Your task to perform on an android device: toggle airplane mode Image 0: 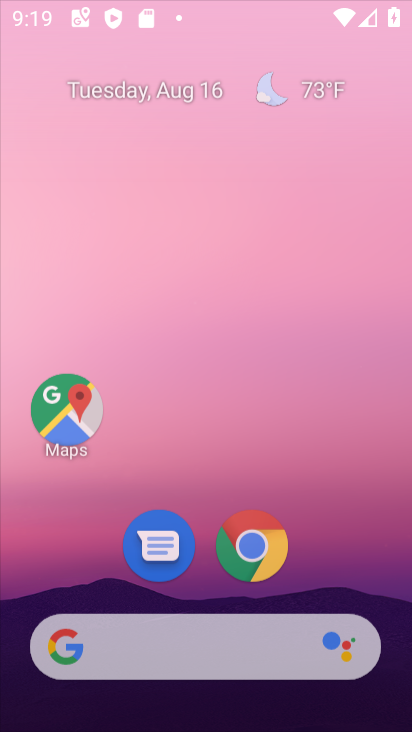
Step 0: drag from (308, 581) to (319, 87)
Your task to perform on an android device: toggle airplane mode Image 1: 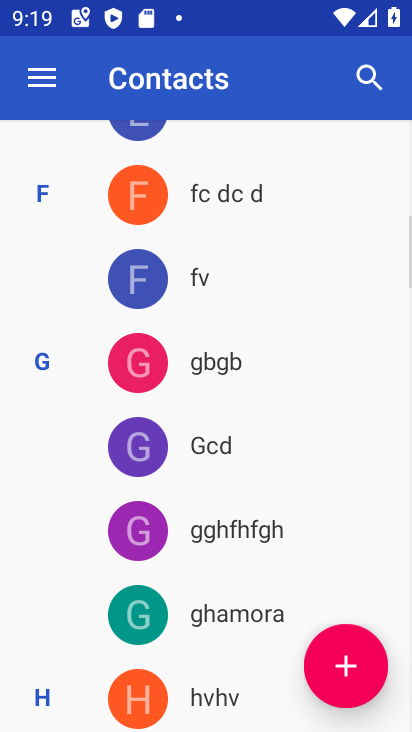
Step 1: press home button
Your task to perform on an android device: toggle airplane mode Image 2: 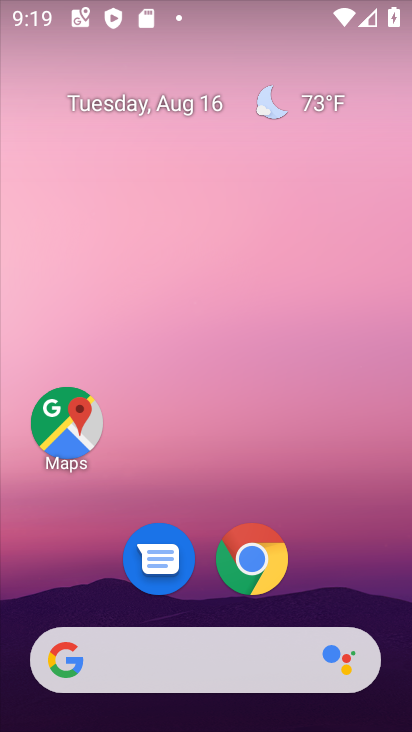
Step 2: drag from (311, 587) to (311, 543)
Your task to perform on an android device: toggle airplane mode Image 3: 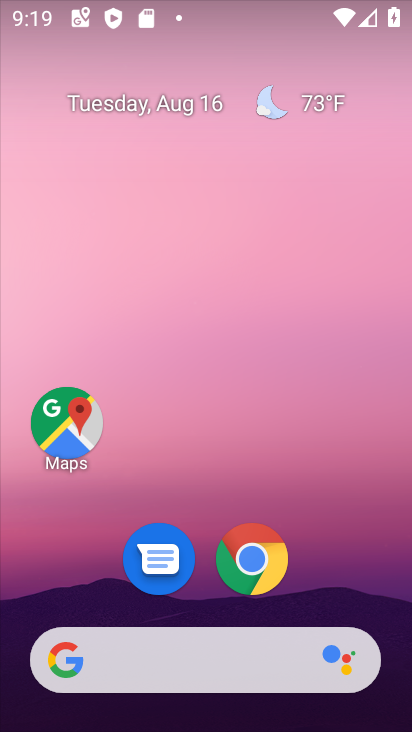
Step 3: drag from (284, 7) to (262, 493)
Your task to perform on an android device: toggle airplane mode Image 4: 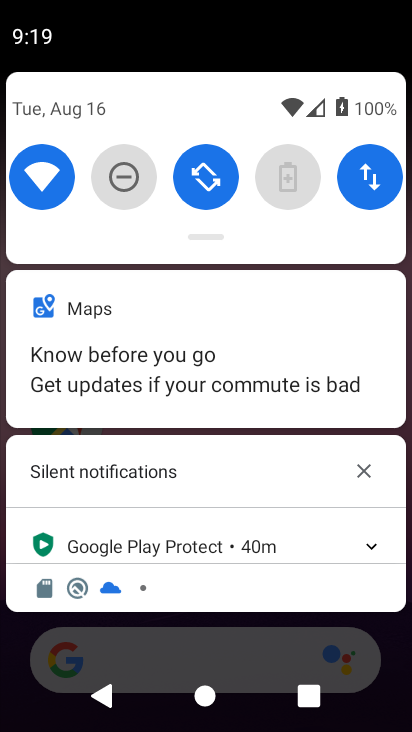
Step 4: drag from (346, 132) to (50, 49)
Your task to perform on an android device: toggle airplane mode Image 5: 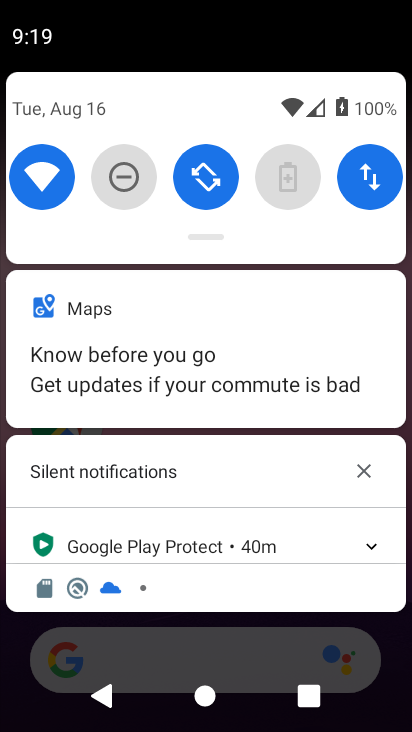
Step 5: drag from (319, 196) to (17, 159)
Your task to perform on an android device: toggle airplane mode Image 6: 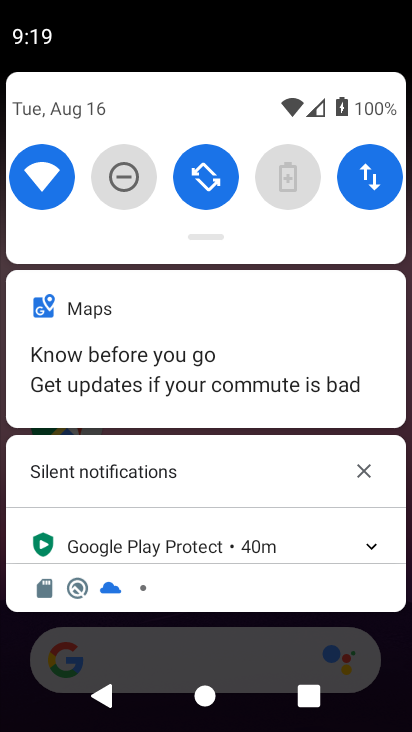
Step 6: drag from (343, 216) to (330, 708)
Your task to perform on an android device: toggle airplane mode Image 7: 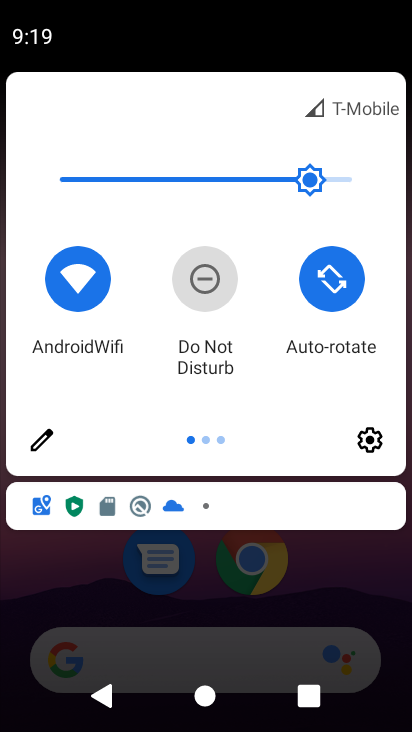
Step 7: drag from (372, 264) to (3, 170)
Your task to perform on an android device: toggle airplane mode Image 8: 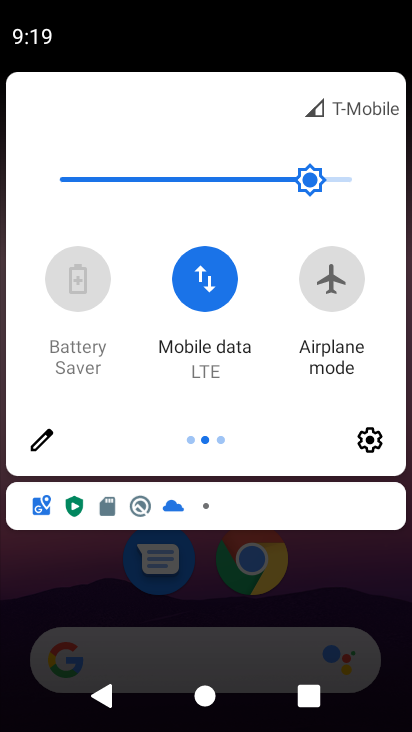
Step 8: click (338, 273)
Your task to perform on an android device: toggle airplane mode Image 9: 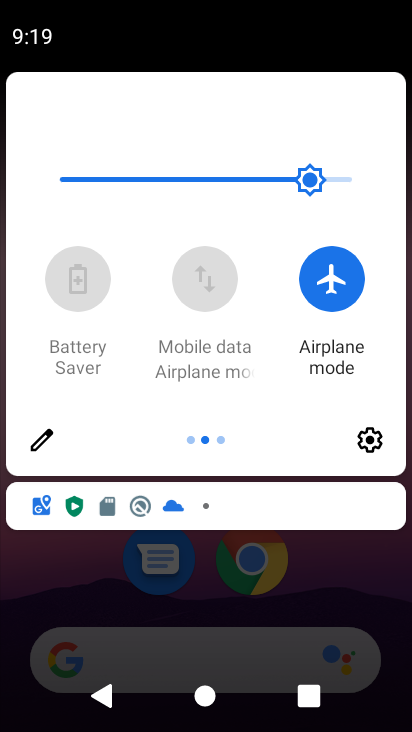
Step 9: task complete